Your task to perform on an android device: open the mobile data screen to see how much data has been used Image 0: 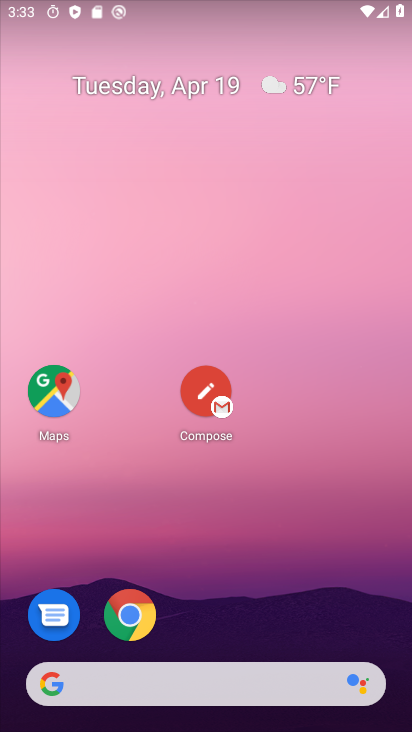
Step 0: drag from (365, 633) to (342, 2)
Your task to perform on an android device: open the mobile data screen to see how much data has been used Image 1: 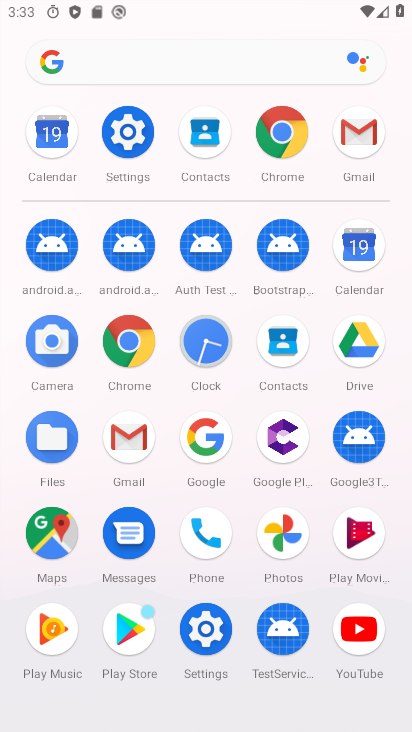
Step 1: click (206, 631)
Your task to perform on an android device: open the mobile data screen to see how much data has been used Image 2: 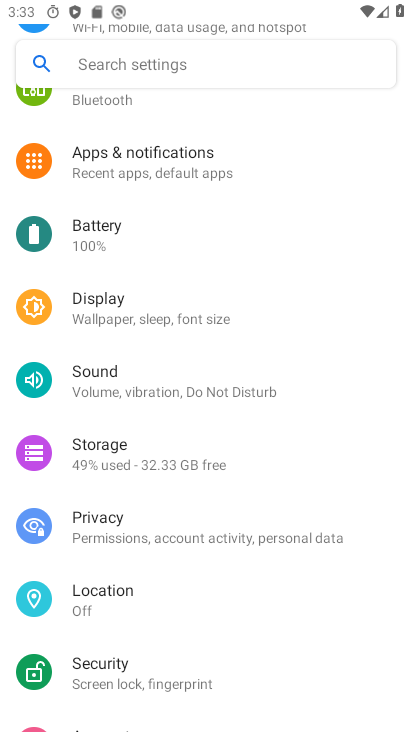
Step 2: drag from (176, 203) to (183, 665)
Your task to perform on an android device: open the mobile data screen to see how much data has been used Image 3: 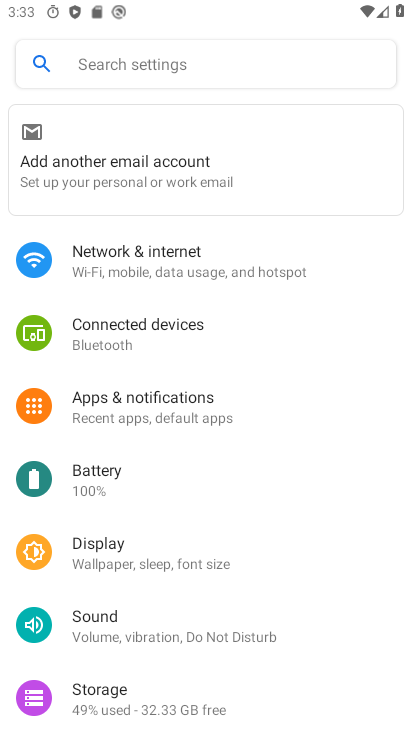
Step 3: click (201, 272)
Your task to perform on an android device: open the mobile data screen to see how much data has been used Image 4: 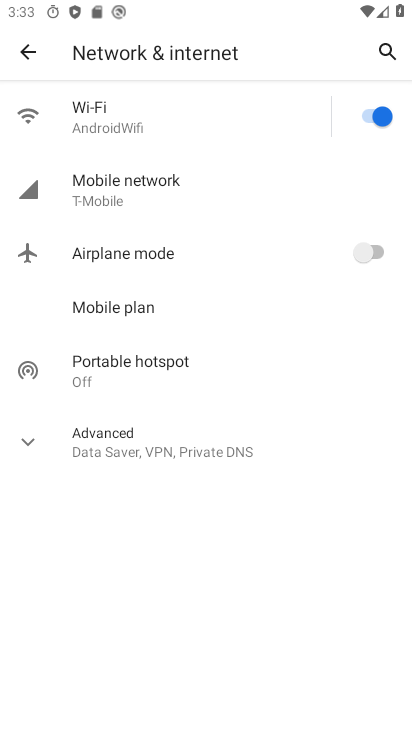
Step 4: click (129, 198)
Your task to perform on an android device: open the mobile data screen to see how much data has been used Image 5: 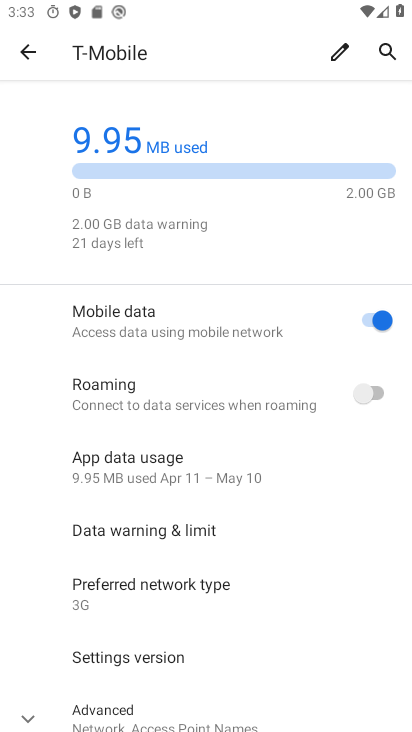
Step 5: click (211, 231)
Your task to perform on an android device: open the mobile data screen to see how much data has been used Image 6: 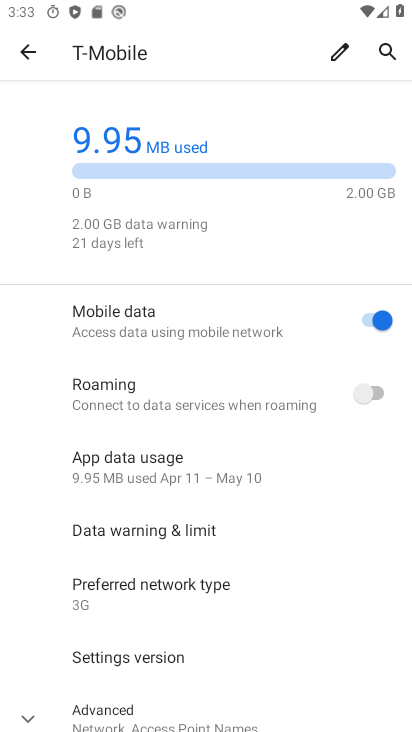
Step 6: task complete